Your task to perform on an android device: delete browsing data in the chrome app Image 0: 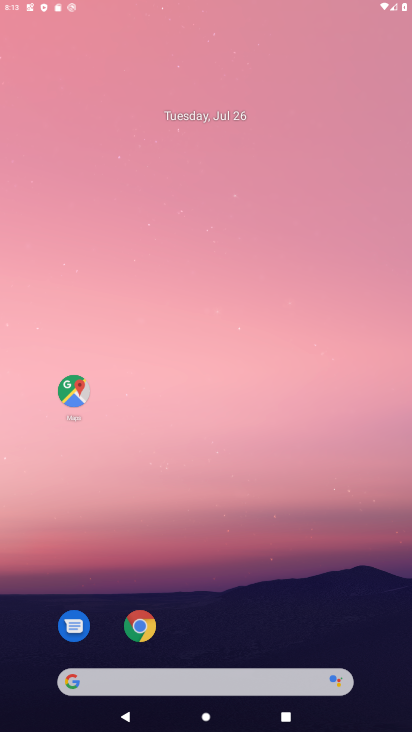
Step 0: press home button
Your task to perform on an android device: delete browsing data in the chrome app Image 1: 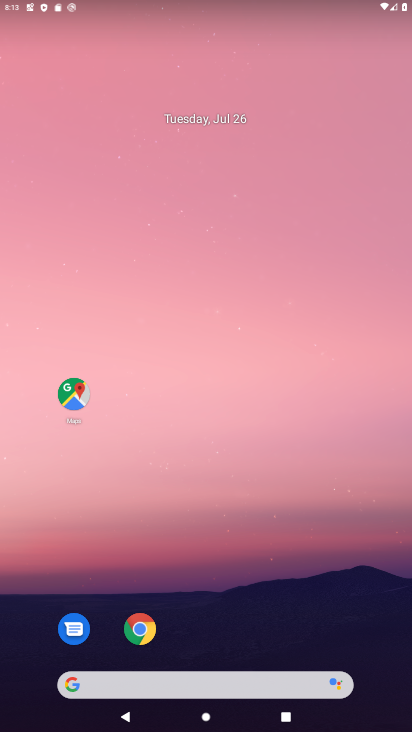
Step 1: drag from (292, 11) to (253, 490)
Your task to perform on an android device: delete browsing data in the chrome app Image 2: 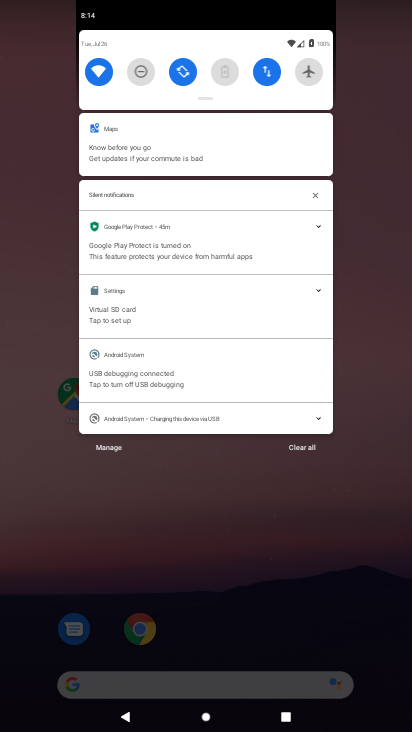
Step 2: click (277, 573)
Your task to perform on an android device: delete browsing data in the chrome app Image 3: 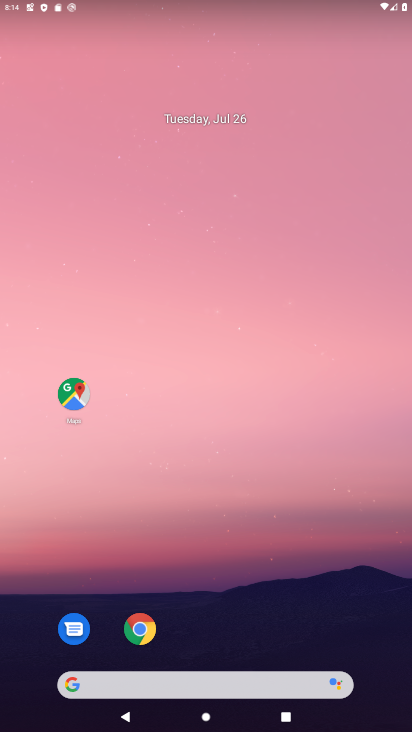
Step 3: click (137, 622)
Your task to perform on an android device: delete browsing data in the chrome app Image 4: 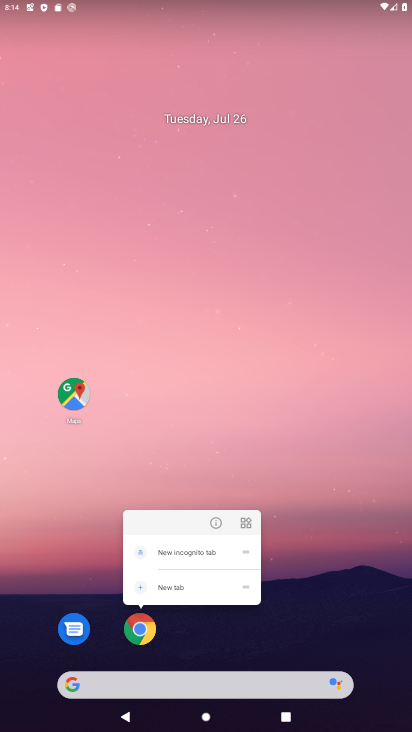
Step 4: click (139, 629)
Your task to perform on an android device: delete browsing data in the chrome app Image 5: 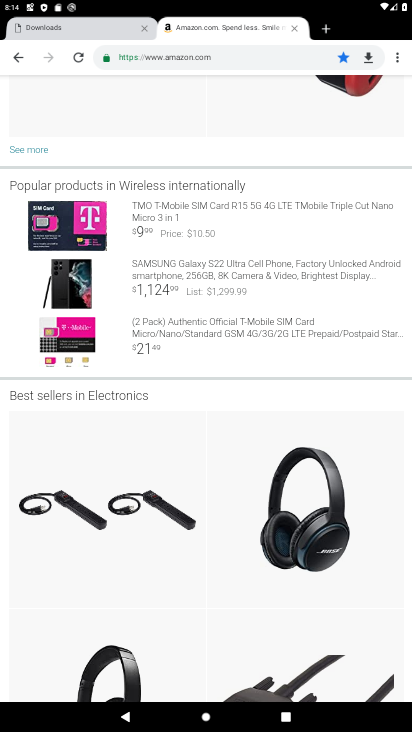
Step 5: click (397, 54)
Your task to perform on an android device: delete browsing data in the chrome app Image 6: 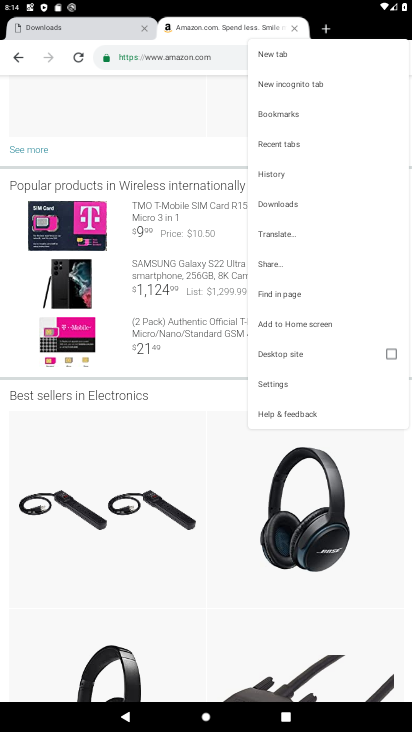
Step 6: click (289, 170)
Your task to perform on an android device: delete browsing data in the chrome app Image 7: 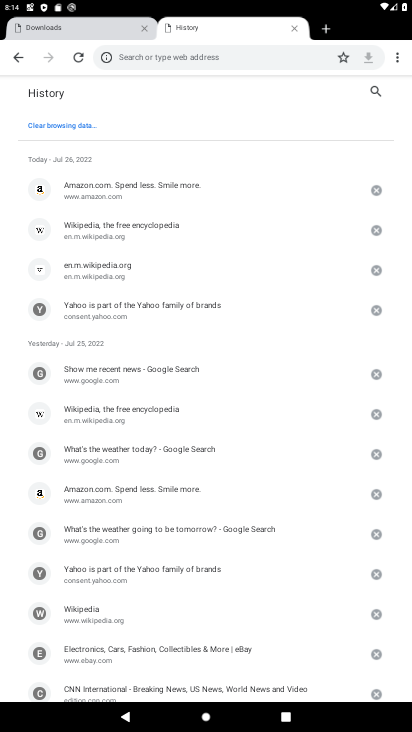
Step 7: click (59, 127)
Your task to perform on an android device: delete browsing data in the chrome app Image 8: 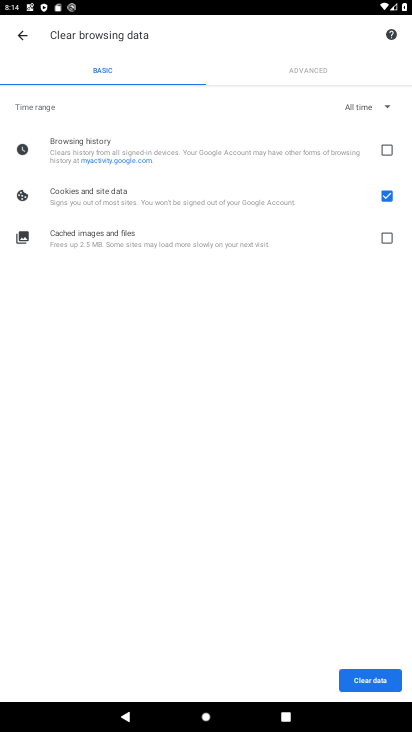
Step 8: click (372, 670)
Your task to perform on an android device: delete browsing data in the chrome app Image 9: 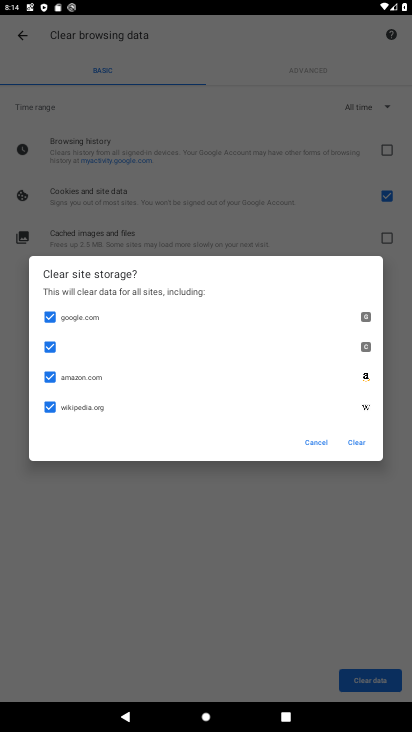
Step 9: click (306, 436)
Your task to perform on an android device: delete browsing data in the chrome app Image 10: 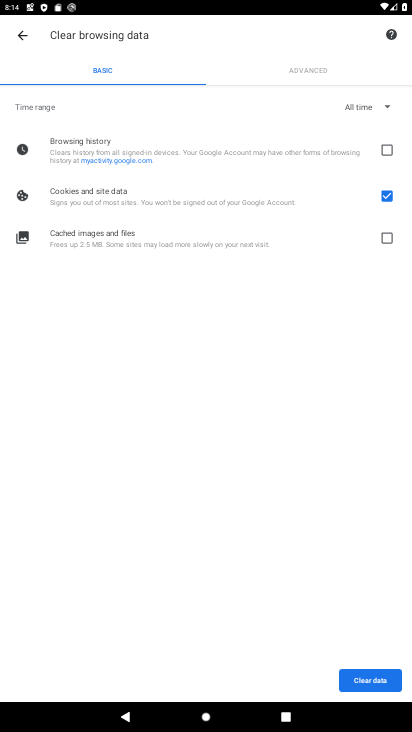
Step 10: click (387, 150)
Your task to perform on an android device: delete browsing data in the chrome app Image 11: 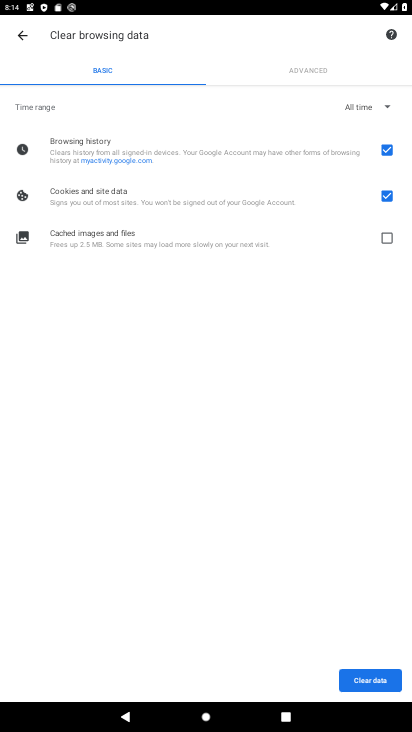
Step 11: click (382, 193)
Your task to perform on an android device: delete browsing data in the chrome app Image 12: 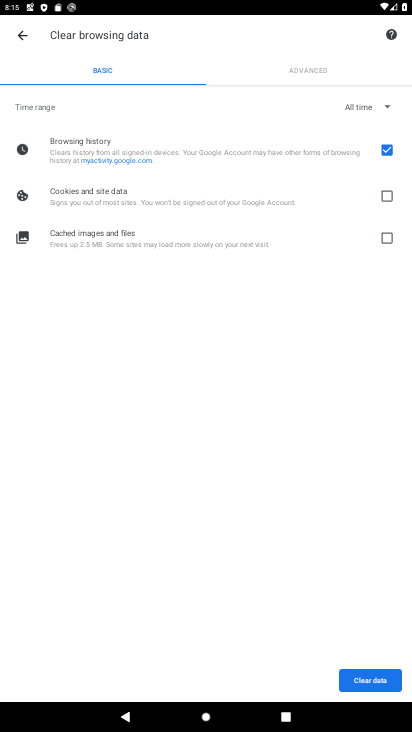
Step 12: click (372, 682)
Your task to perform on an android device: delete browsing data in the chrome app Image 13: 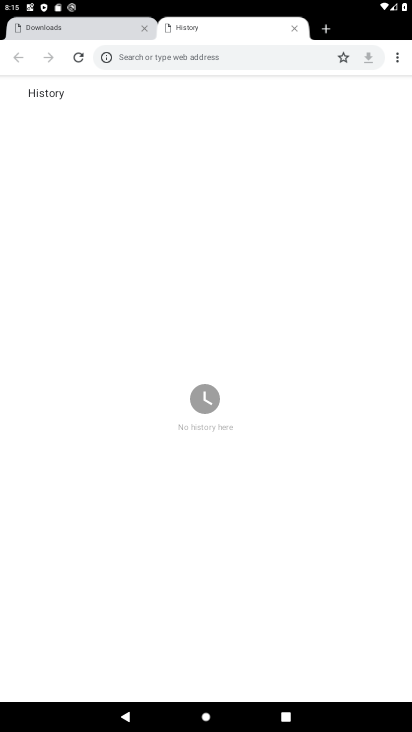
Step 13: task complete